Your task to perform on an android device: When is my next appointment? Image 0: 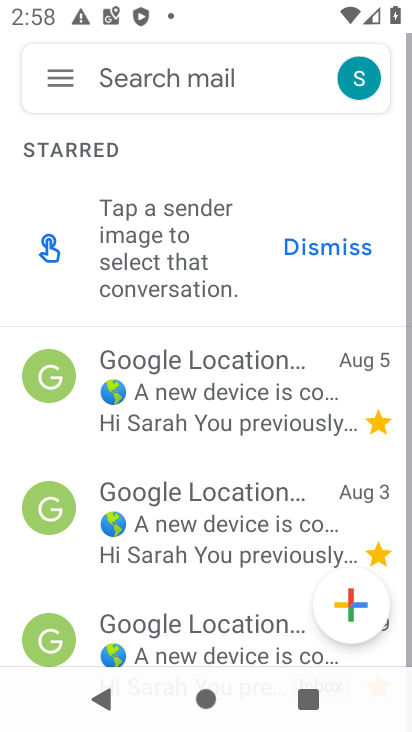
Step 0: drag from (387, 499) to (395, 207)
Your task to perform on an android device: When is my next appointment? Image 1: 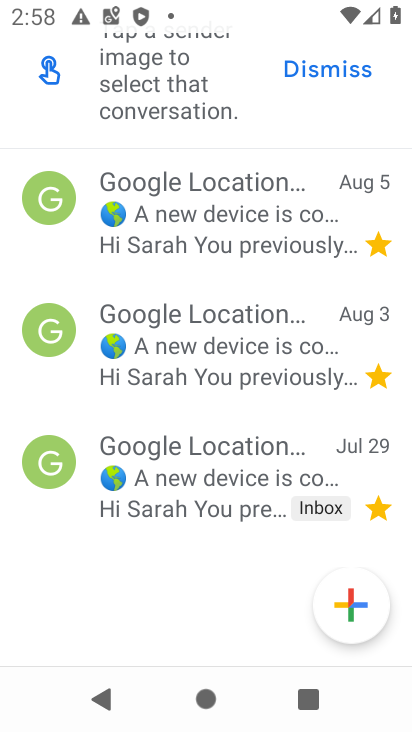
Step 1: press home button
Your task to perform on an android device: When is my next appointment? Image 2: 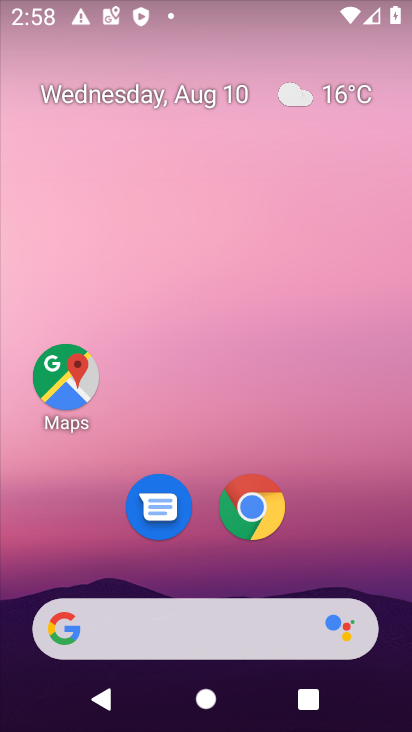
Step 2: drag from (335, 502) to (306, 63)
Your task to perform on an android device: When is my next appointment? Image 3: 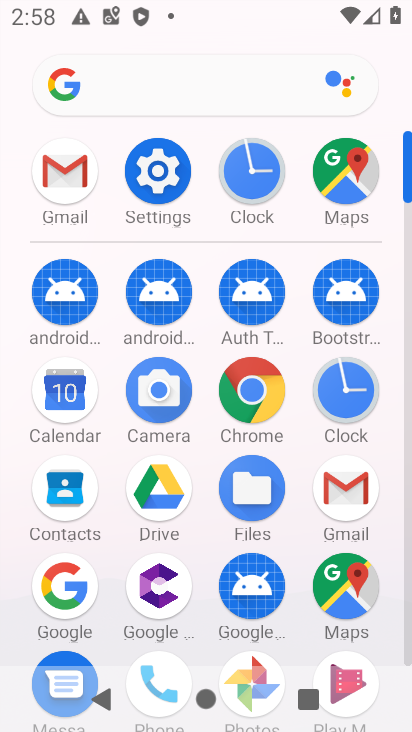
Step 3: click (66, 391)
Your task to perform on an android device: When is my next appointment? Image 4: 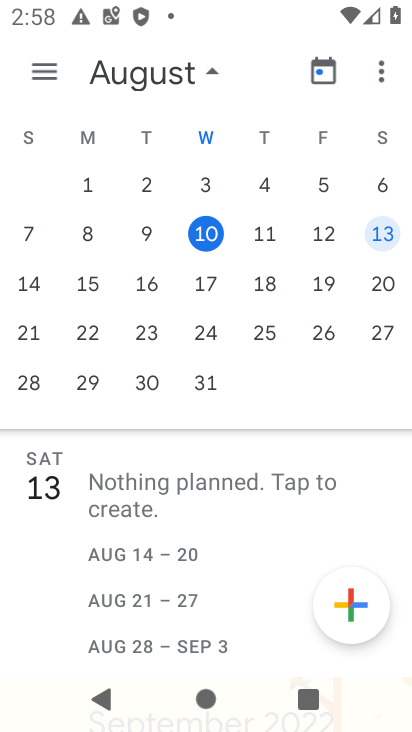
Step 4: click (208, 232)
Your task to perform on an android device: When is my next appointment? Image 5: 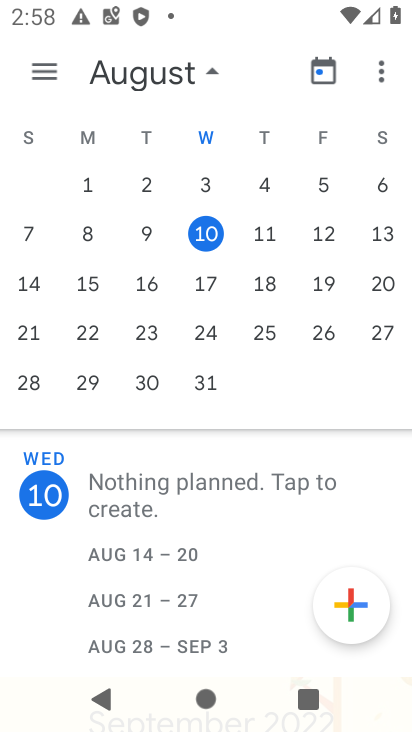
Step 5: task complete